Your task to perform on an android device: find snoozed emails in the gmail app Image 0: 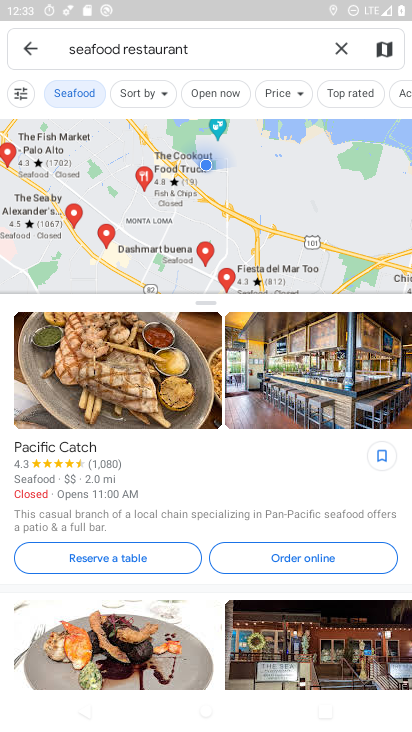
Step 0: press home button
Your task to perform on an android device: find snoozed emails in the gmail app Image 1: 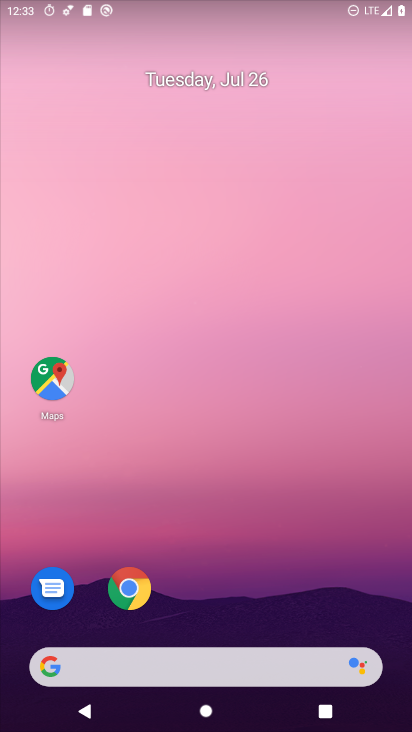
Step 1: drag from (270, 586) to (229, 89)
Your task to perform on an android device: find snoozed emails in the gmail app Image 2: 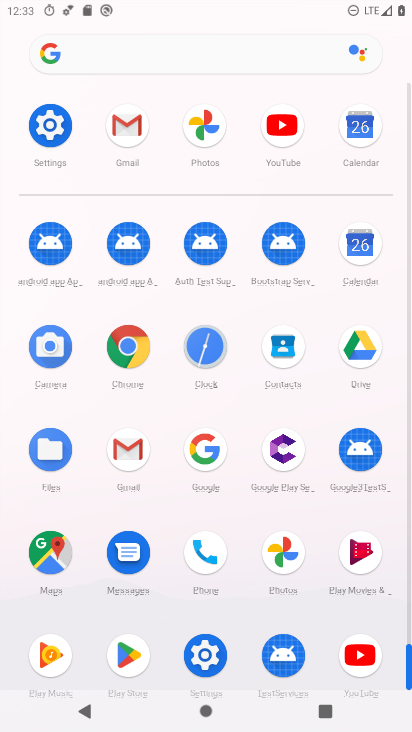
Step 2: click (123, 473)
Your task to perform on an android device: find snoozed emails in the gmail app Image 3: 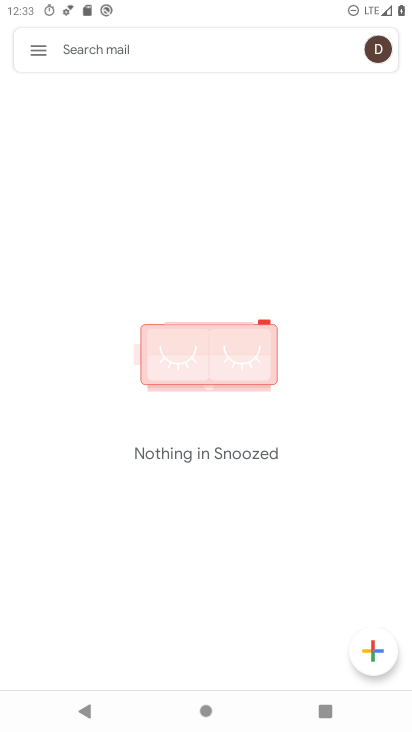
Step 3: click (41, 57)
Your task to perform on an android device: find snoozed emails in the gmail app Image 4: 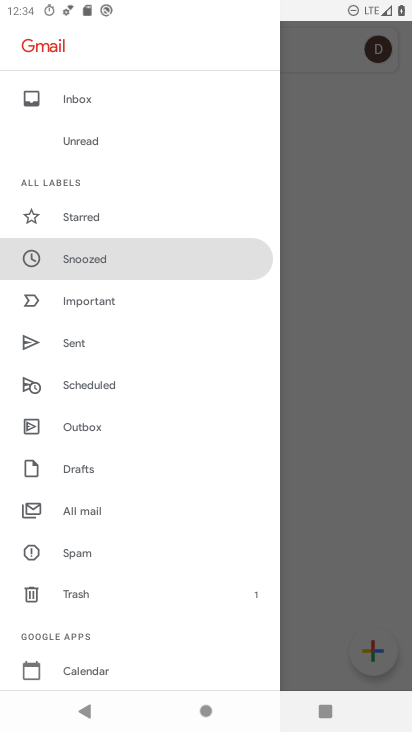
Step 4: click (141, 265)
Your task to perform on an android device: find snoozed emails in the gmail app Image 5: 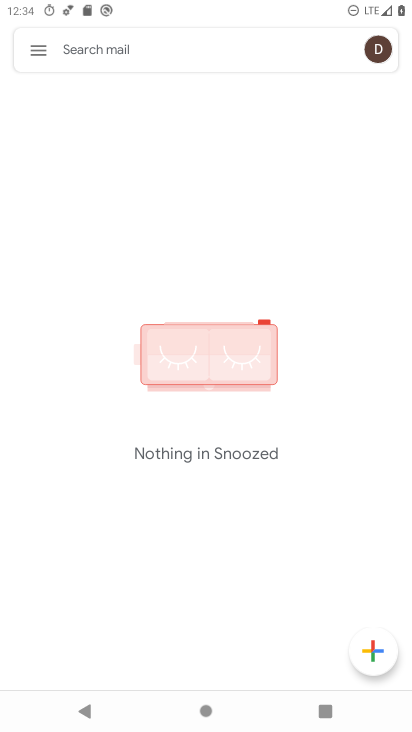
Step 5: task complete